Your task to perform on an android device: Go to settings Image 0: 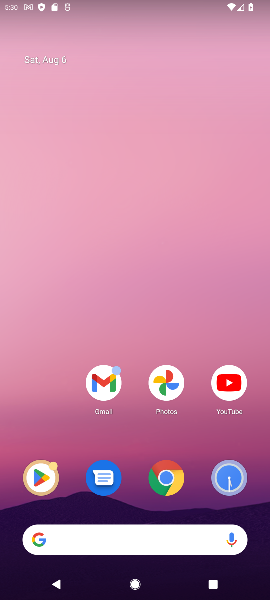
Step 0: drag from (135, 498) to (210, 41)
Your task to perform on an android device: Go to settings Image 1: 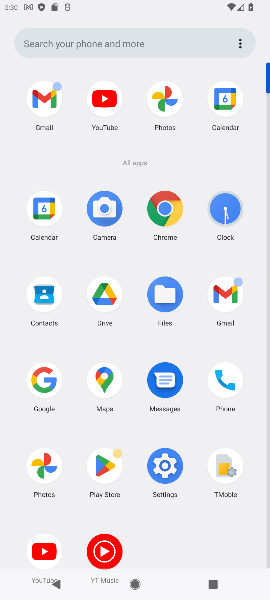
Step 1: click (159, 462)
Your task to perform on an android device: Go to settings Image 2: 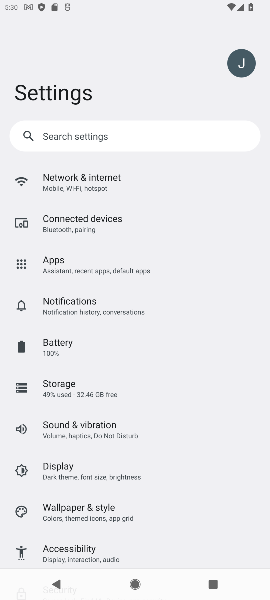
Step 2: task complete